Your task to perform on an android device: Open the Play Movies app and select the watchlist tab. Image 0: 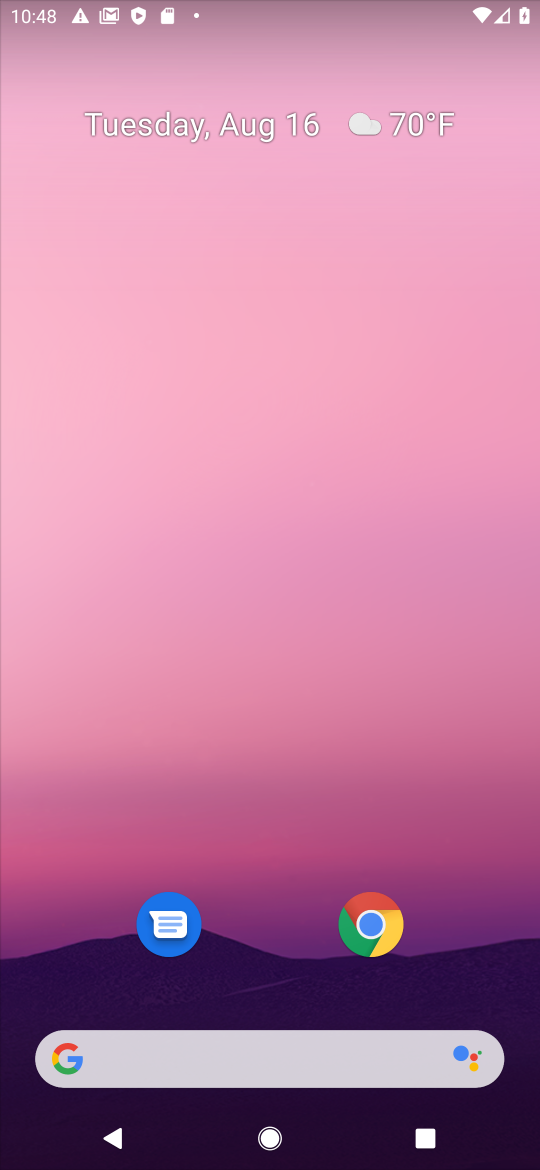
Step 0: press home button
Your task to perform on an android device: Open the Play Movies app and select the watchlist tab. Image 1: 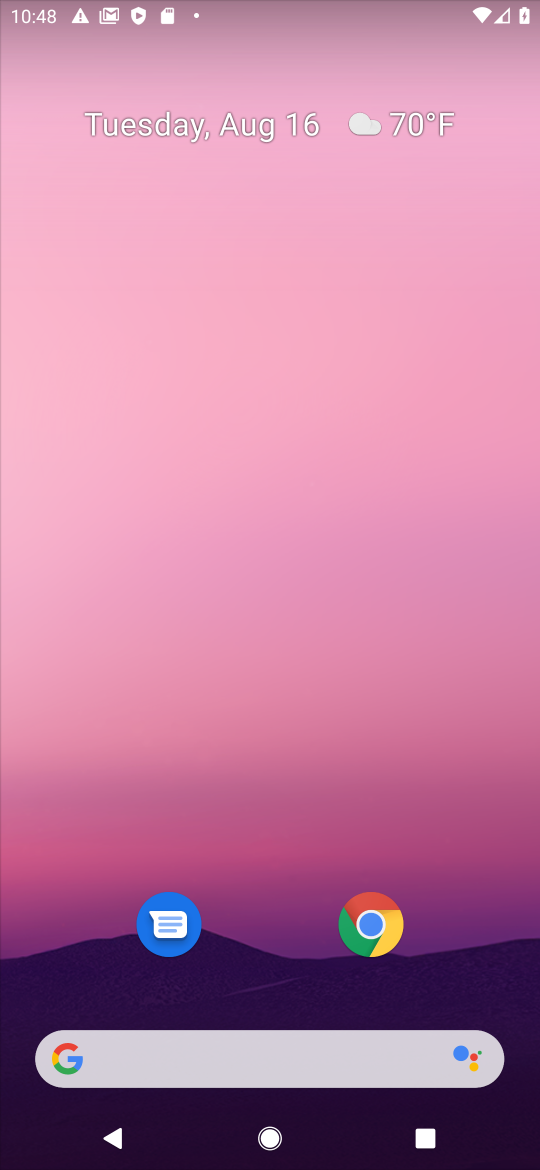
Step 1: drag from (236, 1000) to (185, 209)
Your task to perform on an android device: Open the Play Movies app and select the watchlist tab. Image 2: 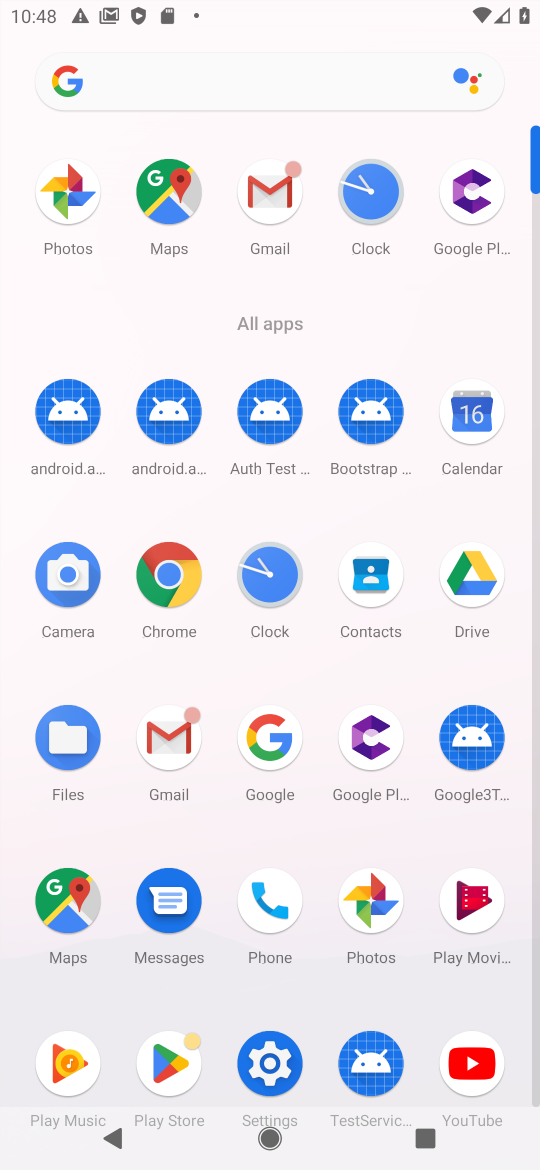
Step 2: click (484, 892)
Your task to perform on an android device: Open the Play Movies app and select the watchlist tab. Image 3: 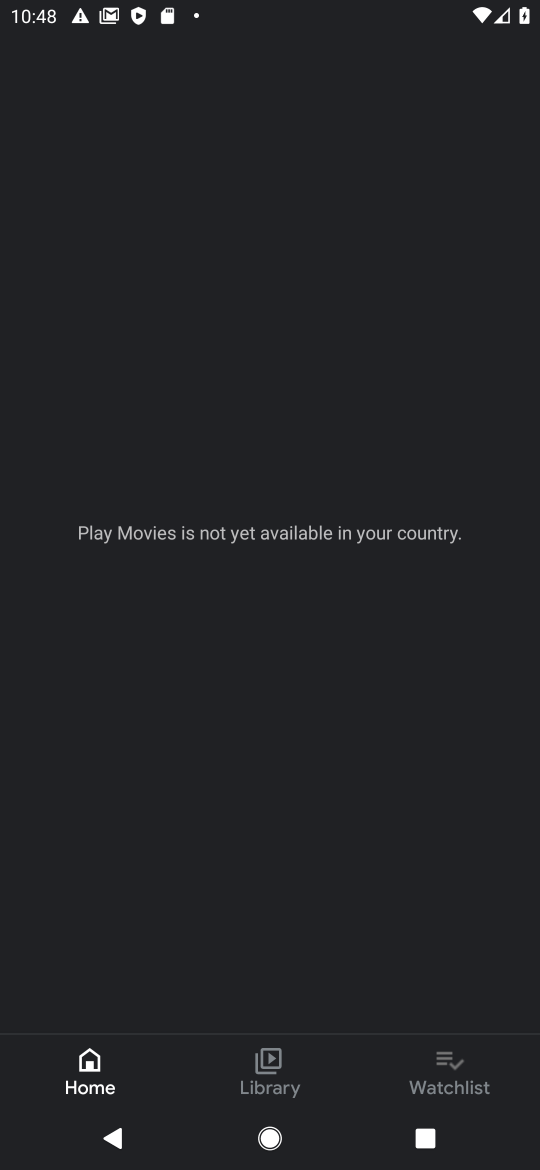
Step 3: click (431, 1078)
Your task to perform on an android device: Open the Play Movies app and select the watchlist tab. Image 4: 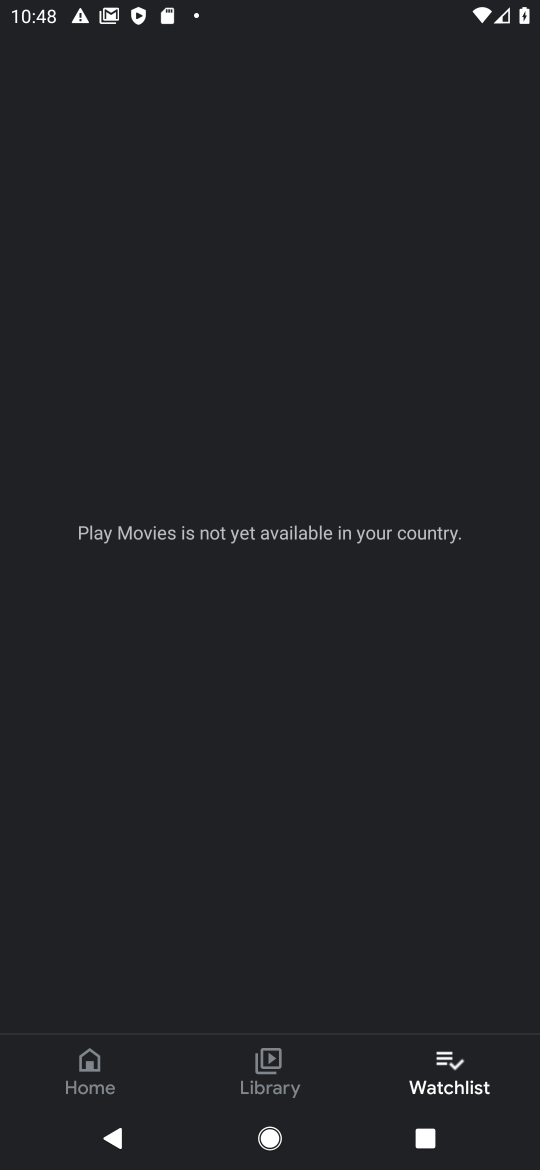
Step 4: task complete